Your task to perform on an android device: open a bookmark in the chrome app Image 0: 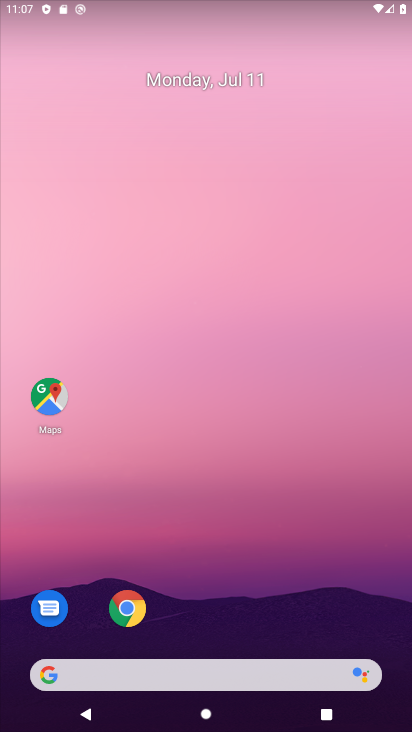
Step 0: click (129, 602)
Your task to perform on an android device: open a bookmark in the chrome app Image 1: 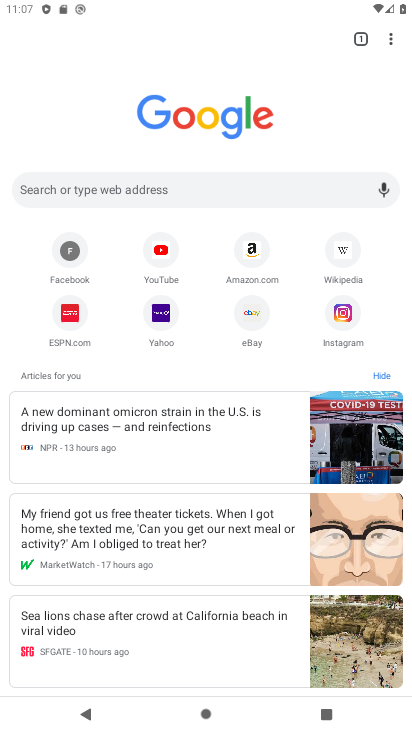
Step 1: click (386, 39)
Your task to perform on an android device: open a bookmark in the chrome app Image 2: 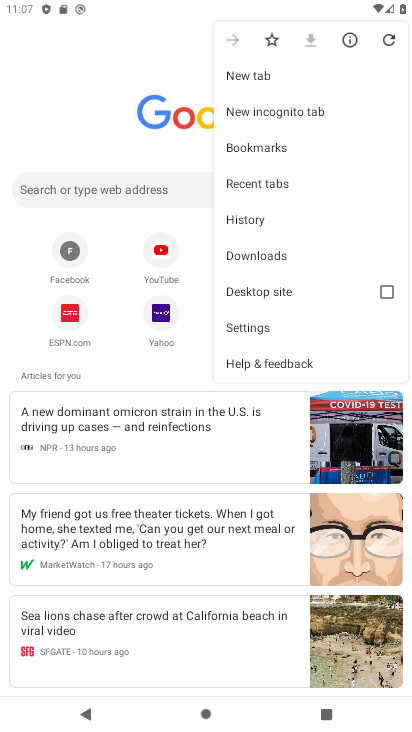
Step 2: click (307, 153)
Your task to perform on an android device: open a bookmark in the chrome app Image 3: 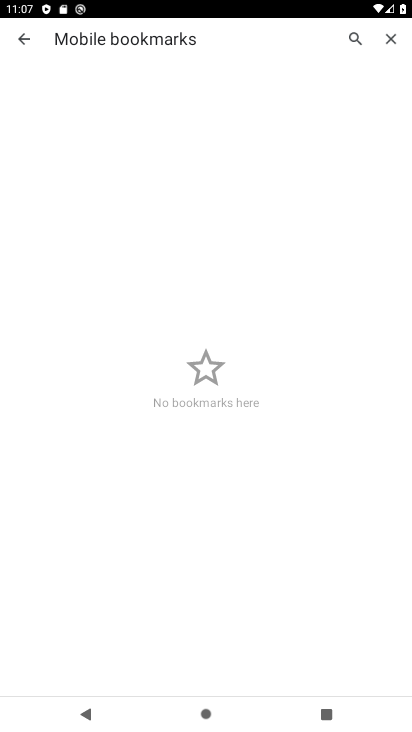
Step 3: task complete